Your task to perform on an android device: What's on my calendar today? Image 0: 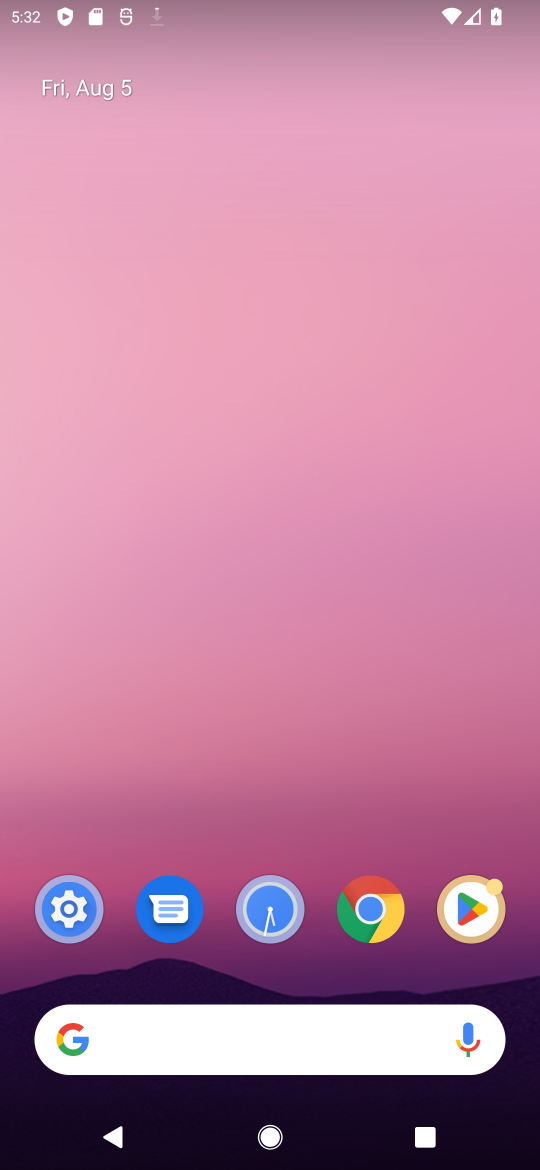
Step 0: press home button
Your task to perform on an android device: What's on my calendar today? Image 1: 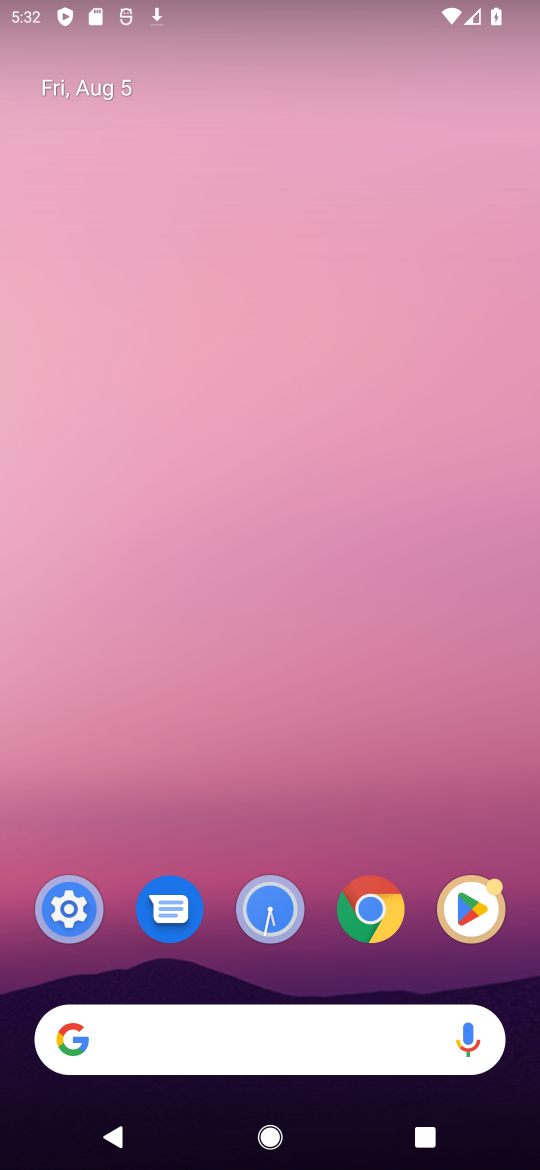
Step 1: drag from (391, 767) to (385, 4)
Your task to perform on an android device: What's on my calendar today? Image 2: 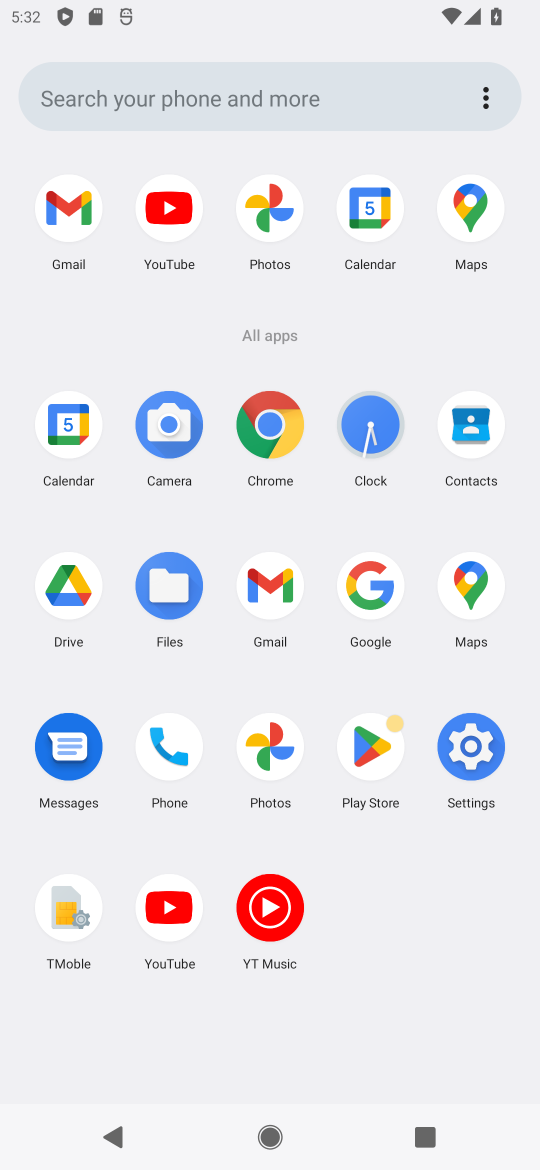
Step 2: click (71, 432)
Your task to perform on an android device: What's on my calendar today? Image 3: 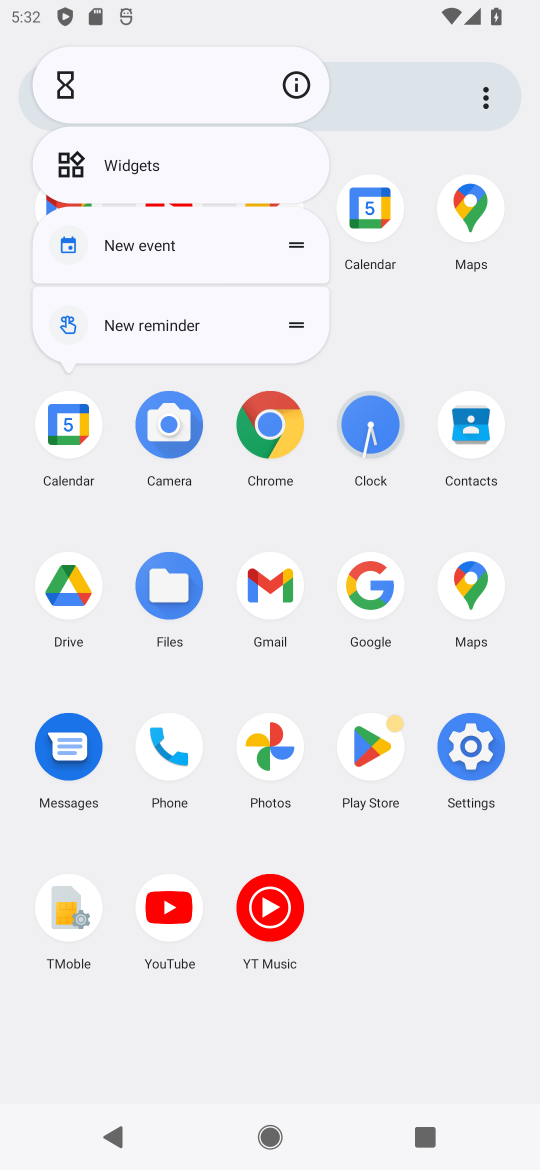
Step 3: click (55, 419)
Your task to perform on an android device: What's on my calendar today? Image 4: 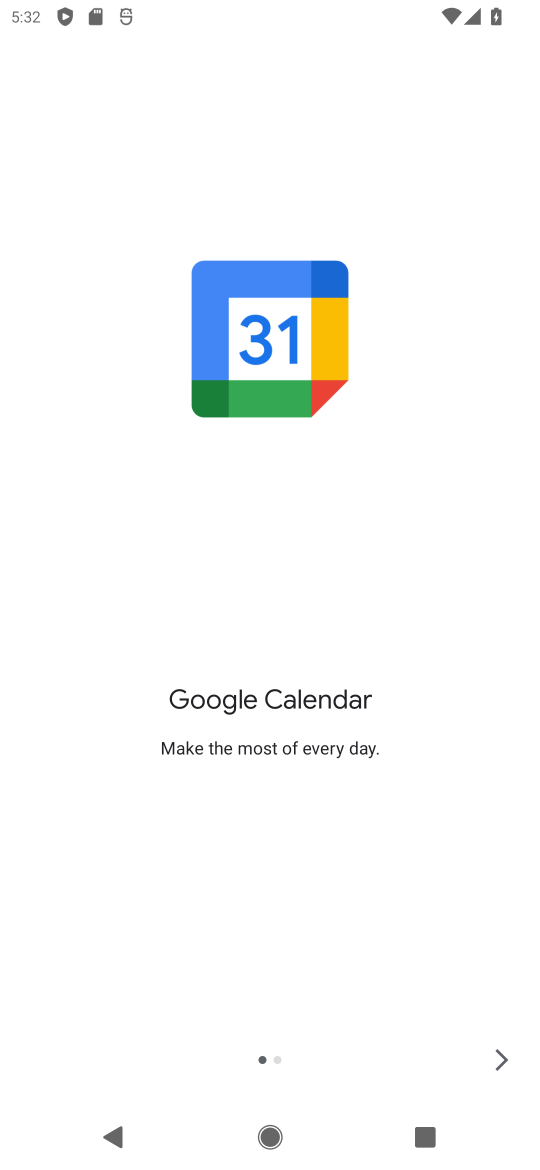
Step 4: click (499, 1058)
Your task to perform on an android device: What's on my calendar today? Image 5: 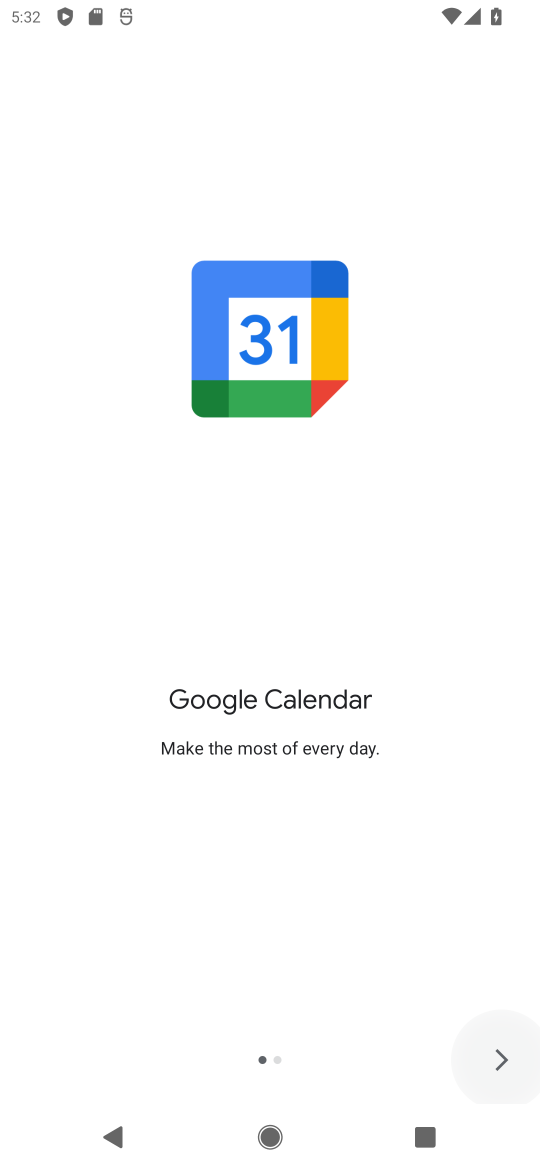
Step 5: click (499, 1058)
Your task to perform on an android device: What's on my calendar today? Image 6: 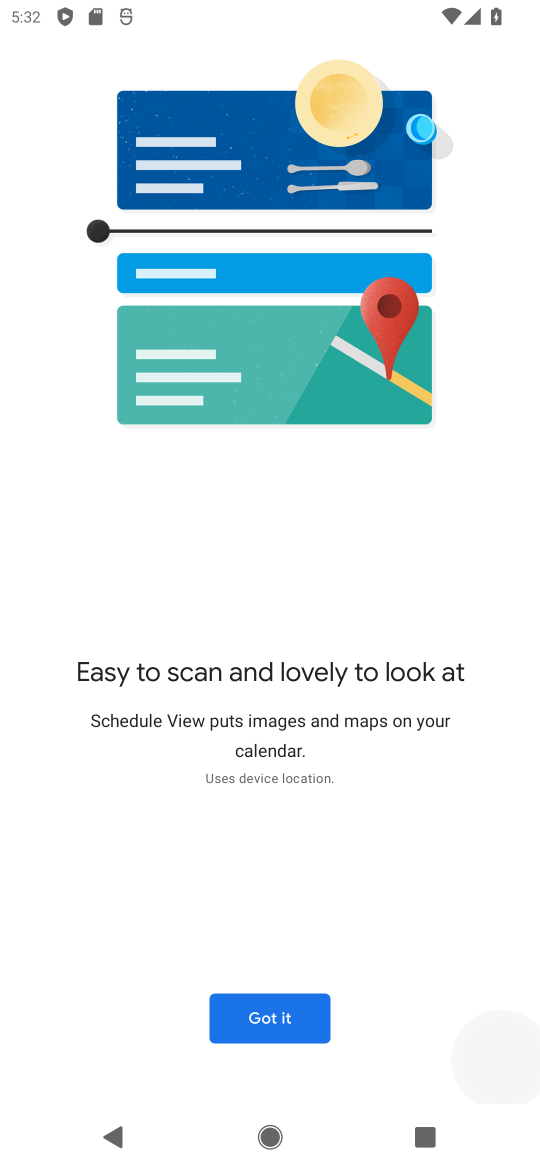
Step 6: click (499, 1058)
Your task to perform on an android device: What's on my calendar today? Image 7: 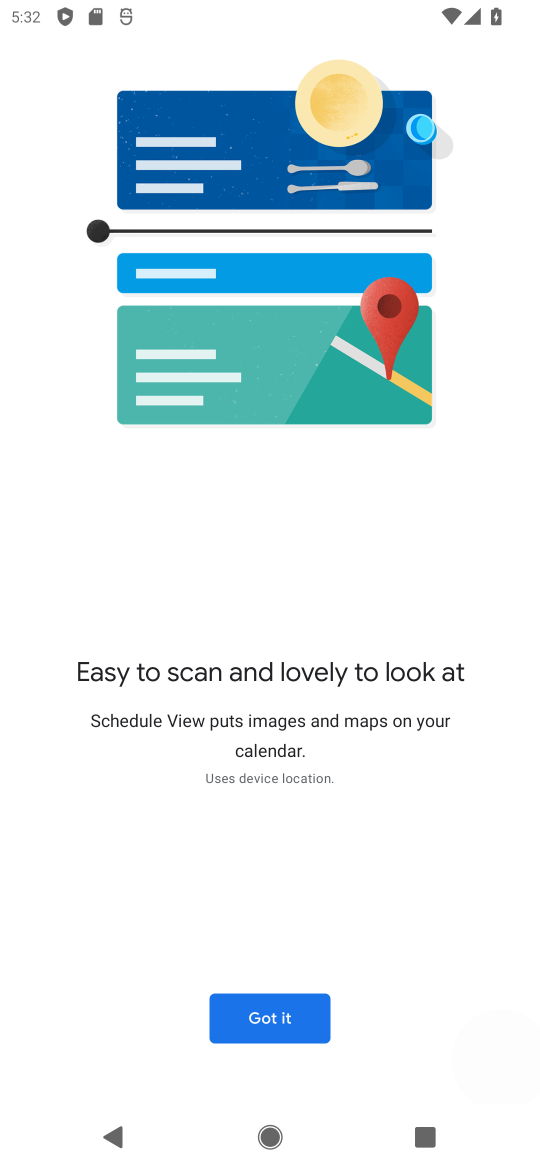
Step 7: click (263, 1022)
Your task to perform on an android device: What's on my calendar today? Image 8: 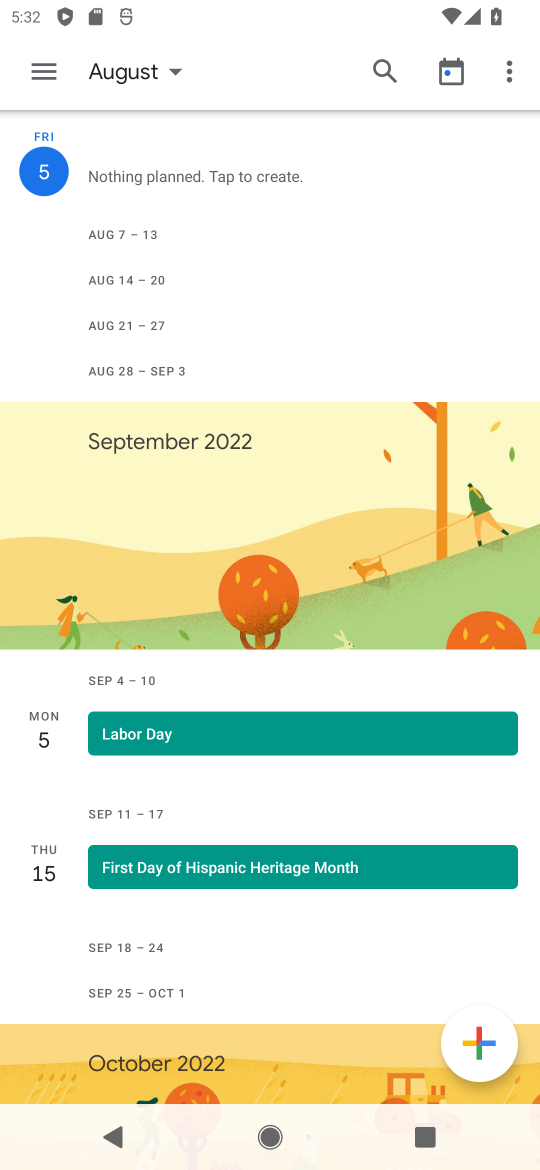
Step 8: click (47, 170)
Your task to perform on an android device: What's on my calendar today? Image 9: 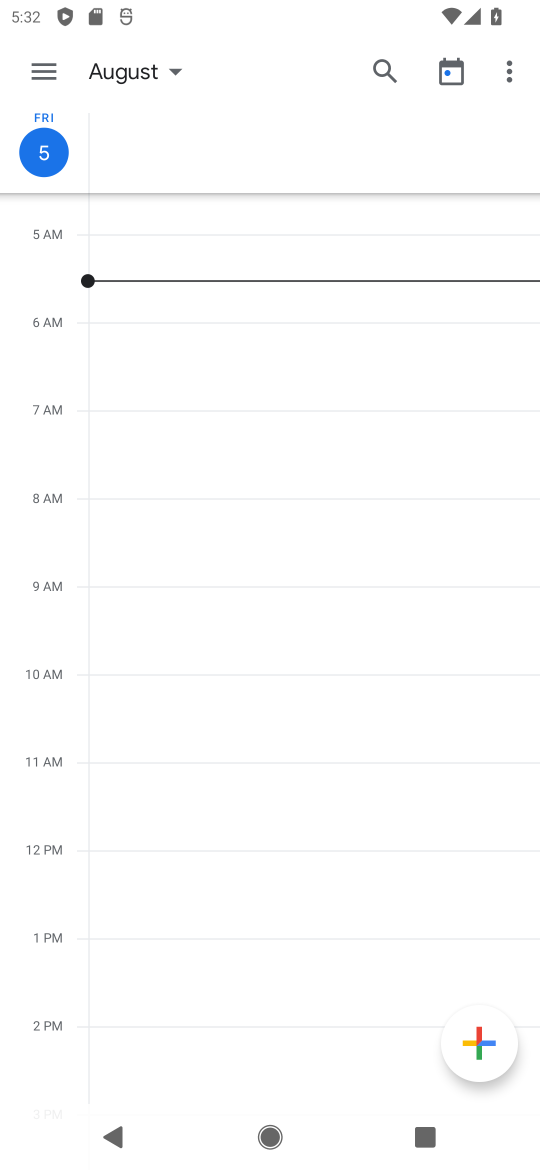
Step 9: task complete